Your task to perform on an android device: see tabs open on other devices in the chrome app Image 0: 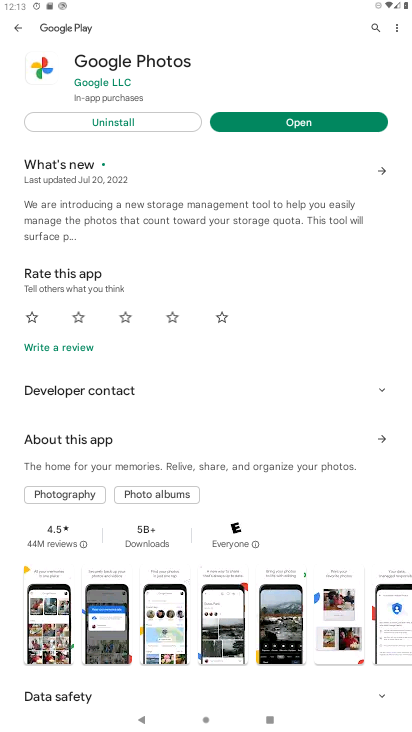
Step 0: press home button
Your task to perform on an android device: see tabs open on other devices in the chrome app Image 1: 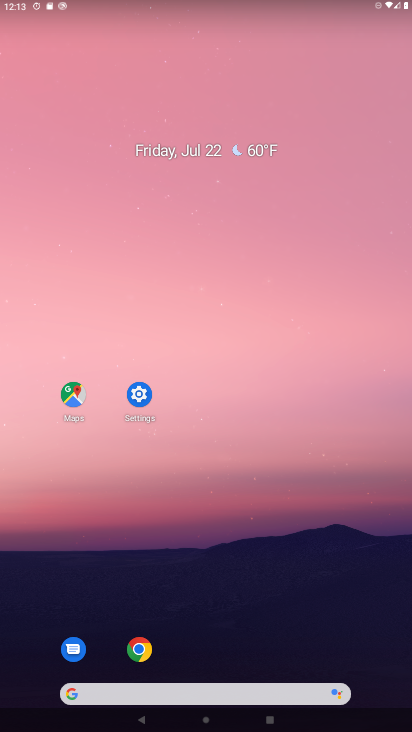
Step 1: click (143, 647)
Your task to perform on an android device: see tabs open on other devices in the chrome app Image 2: 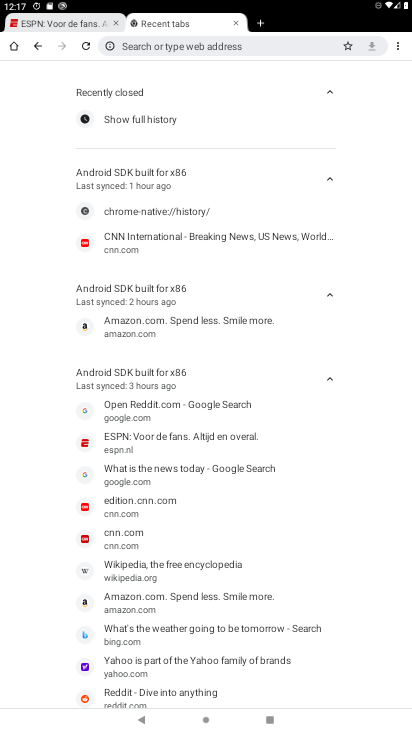
Step 2: click (235, 324)
Your task to perform on an android device: see tabs open on other devices in the chrome app Image 3: 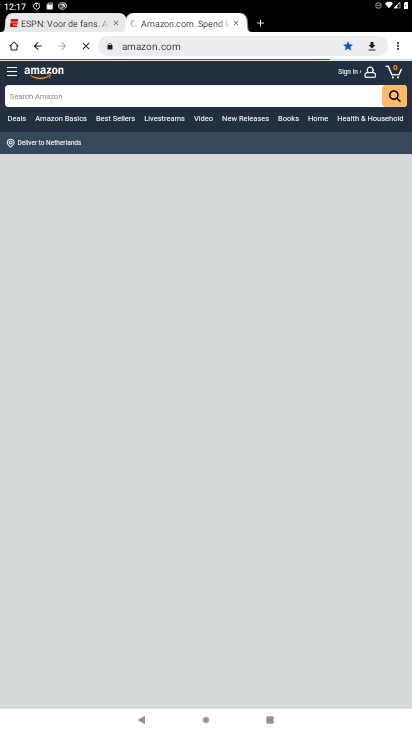
Step 3: task complete